Your task to perform on an android device: turn on improve location accuracy Image 0: 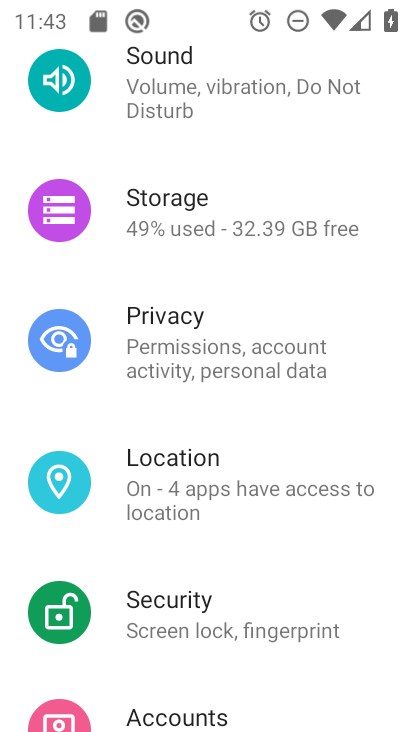
Step 0: press home button
Your task to perform on an android device: turn on improve location accuracy Image 1: 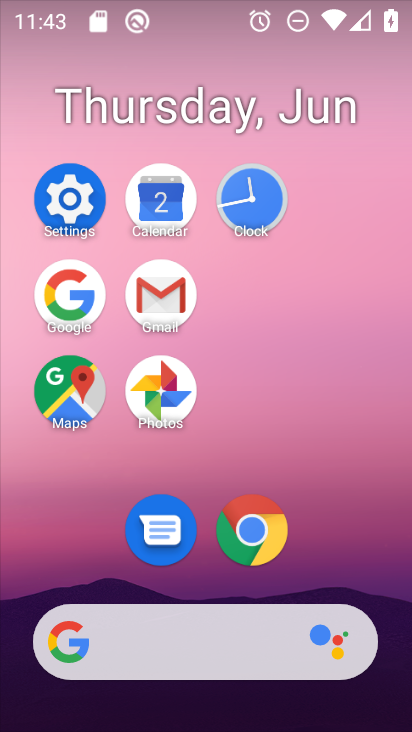
Step 1: click (74, 216)
Your task to perform on an android device: turn on improve location accuracy Image 2: 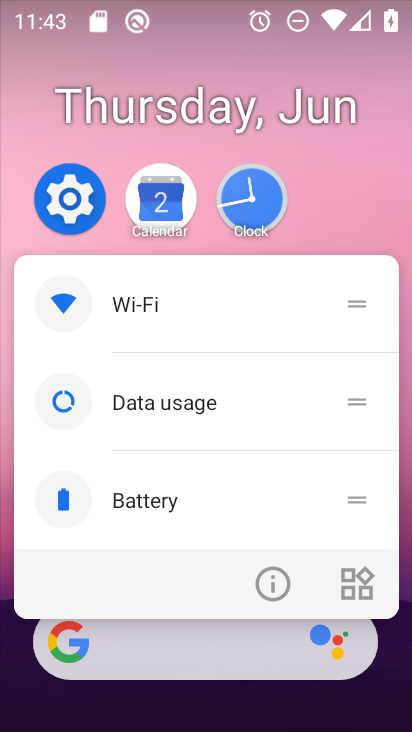
Step 2: click (72, 196)
Your task to perform on an android device: turn on improve location accuracy Image 3: 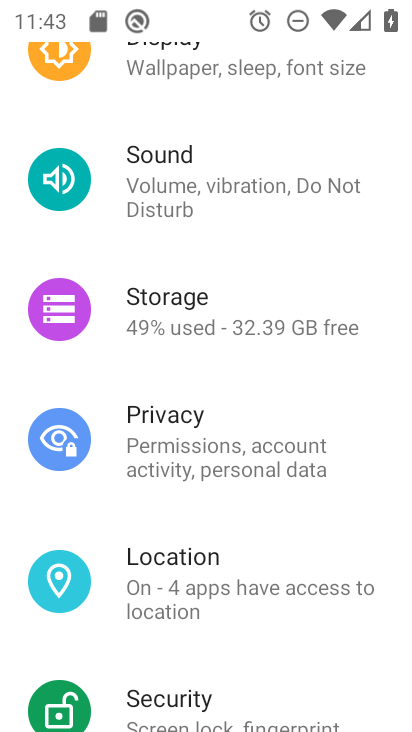
Step 3: click (283, 557)
Your task to perform on an android device: turn on improve location accuracy Image 4: 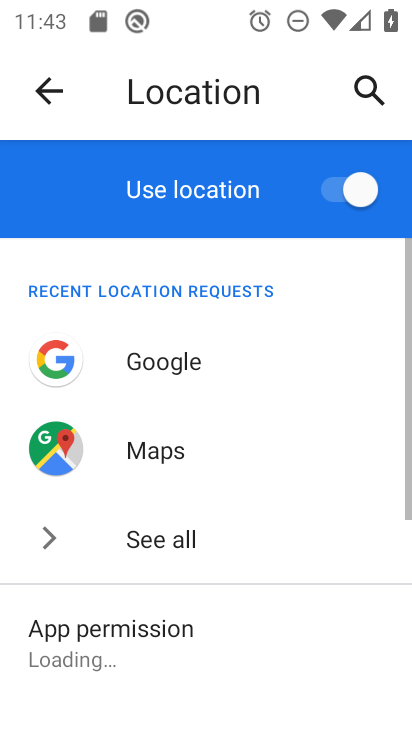
Step 4: drag from (283, 557) to (219, 245)
Your task to perform on an android device: turn on improve location accuracy Image 5: 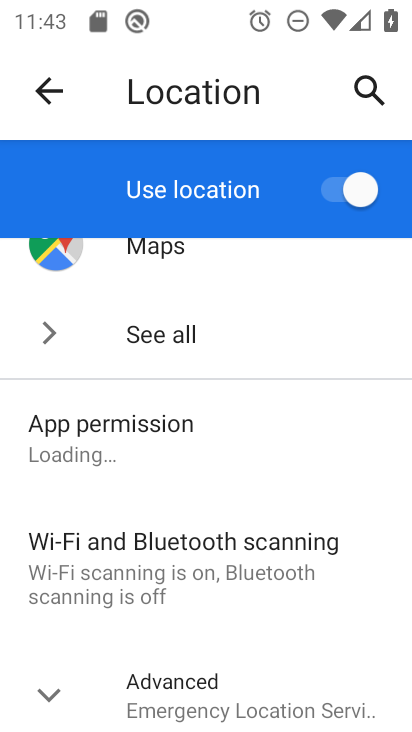
Step 5: click (269, 677)
Your task to perform on an android device: turn on improve location accuracy Image 6: 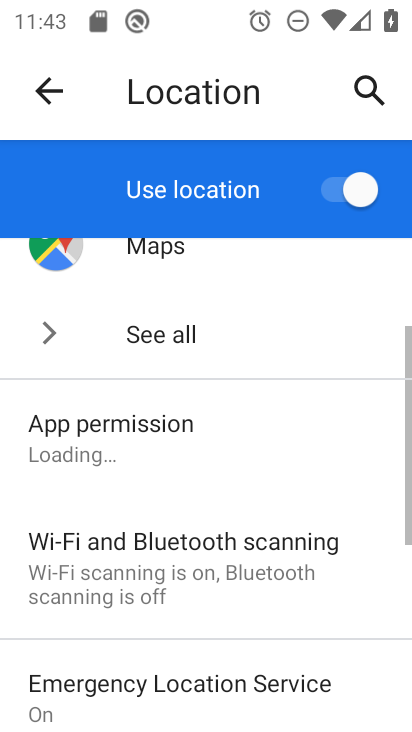
Step 6: drag from (258, 660) to (229, 313)
Your task to perform on an android device: turn on improve location accuracy Image 7: 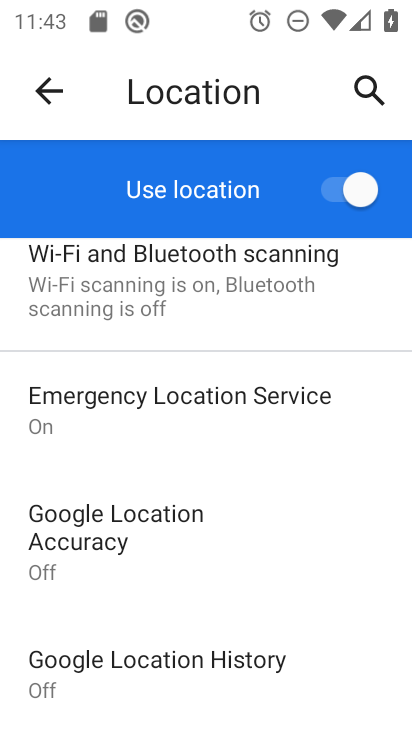
Step 7: click (228, 533)
Your task to perform on an android device: turn on improve location accuracy Image 8: 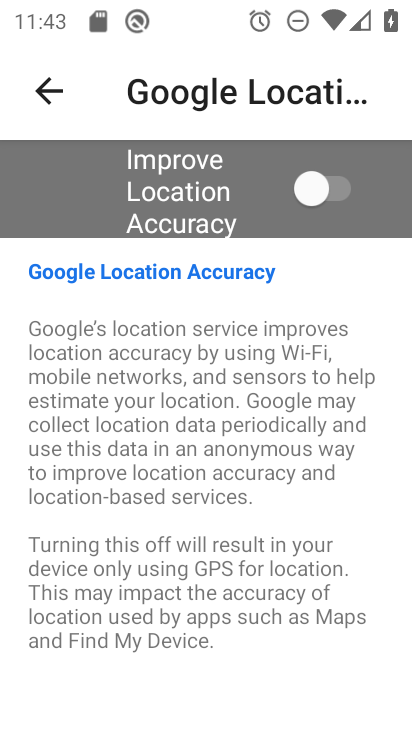
Step 8: click (321, 201)
Your task to perform on an android device: turn on improve location accuracy Image 9: 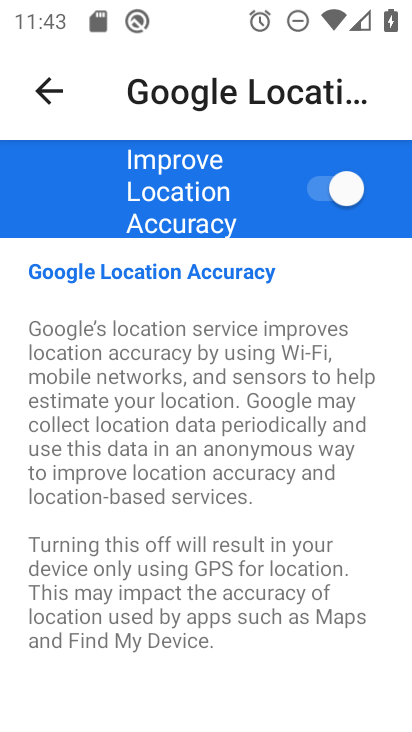
Step 9: task complete